Your task to perform on an android device: Add "apple airpods pro" to the cart on bestbuy Image 0: 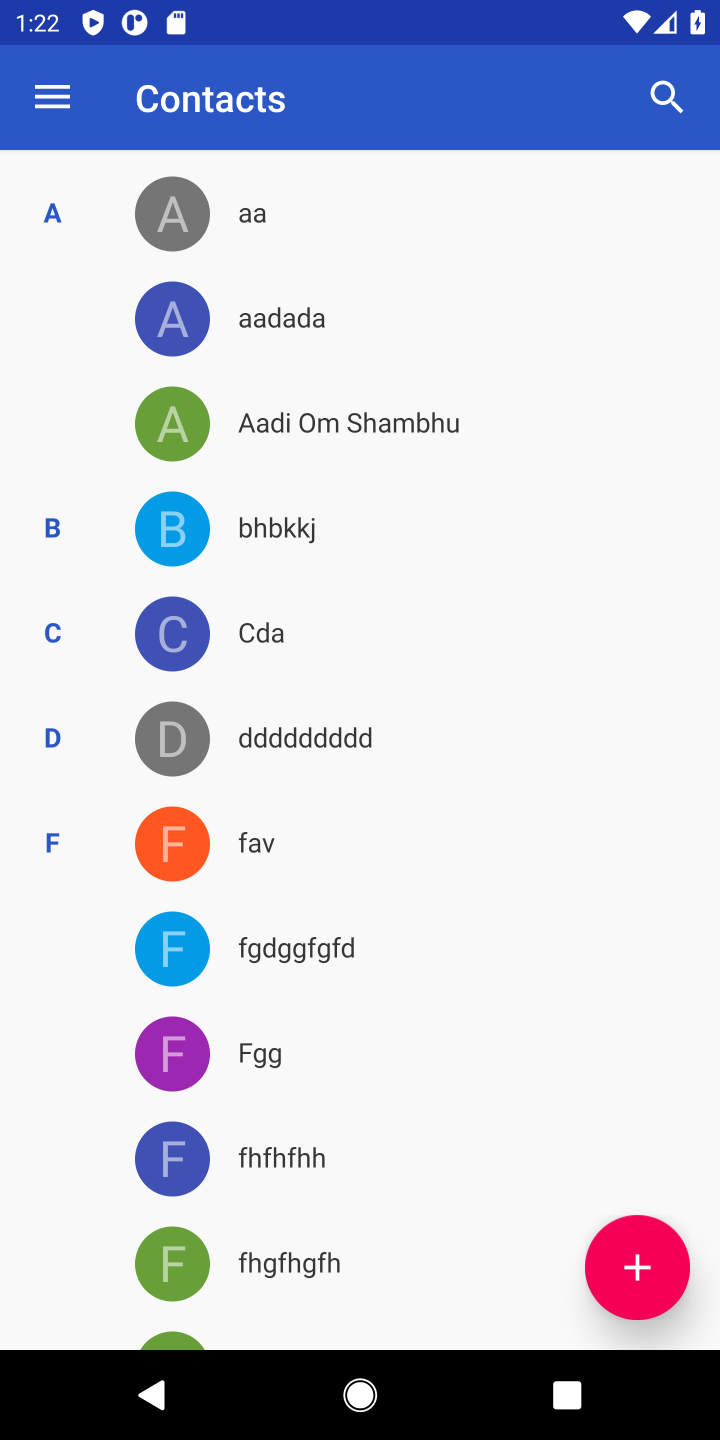
Step 0: press home button
Your task to perform on an android device: Add "apple airpods pro" to the cart on bestbuy Image 1: 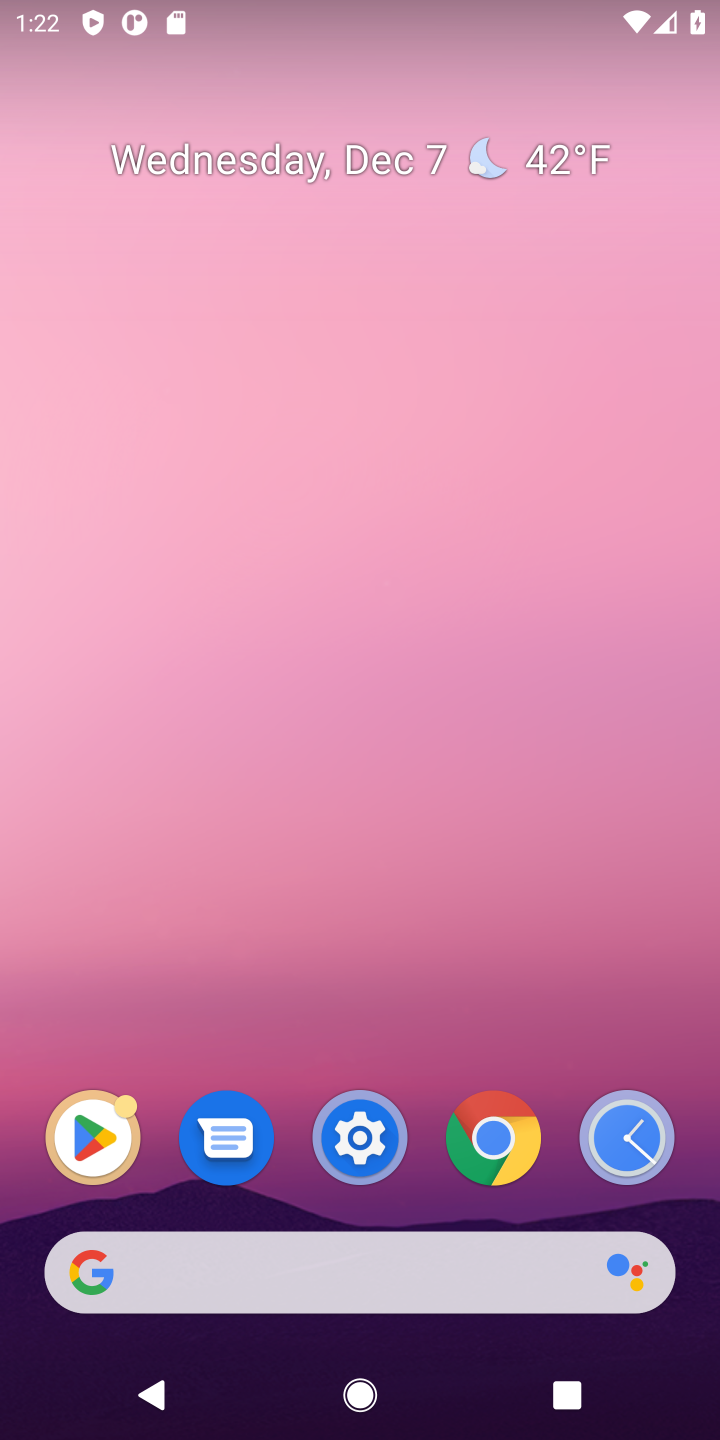
Step 1: click (316, 1259)
Your task to perform on an android device: Add "apple airpods pro" to the cart on bestbuy Image 2: 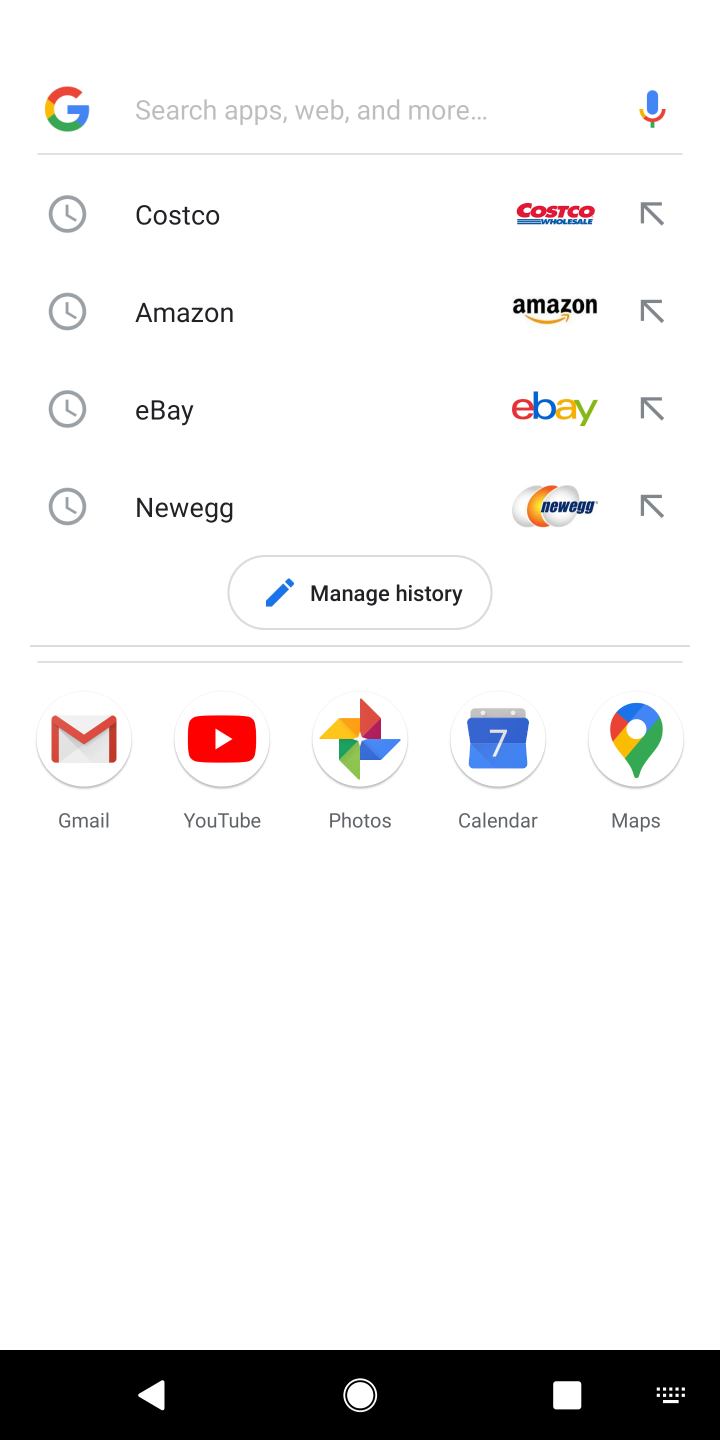
Step 2: type "estbuy"
Your task to perform on an android device: Add "apple airpods pro" to the cart on bestbuy Image 3: 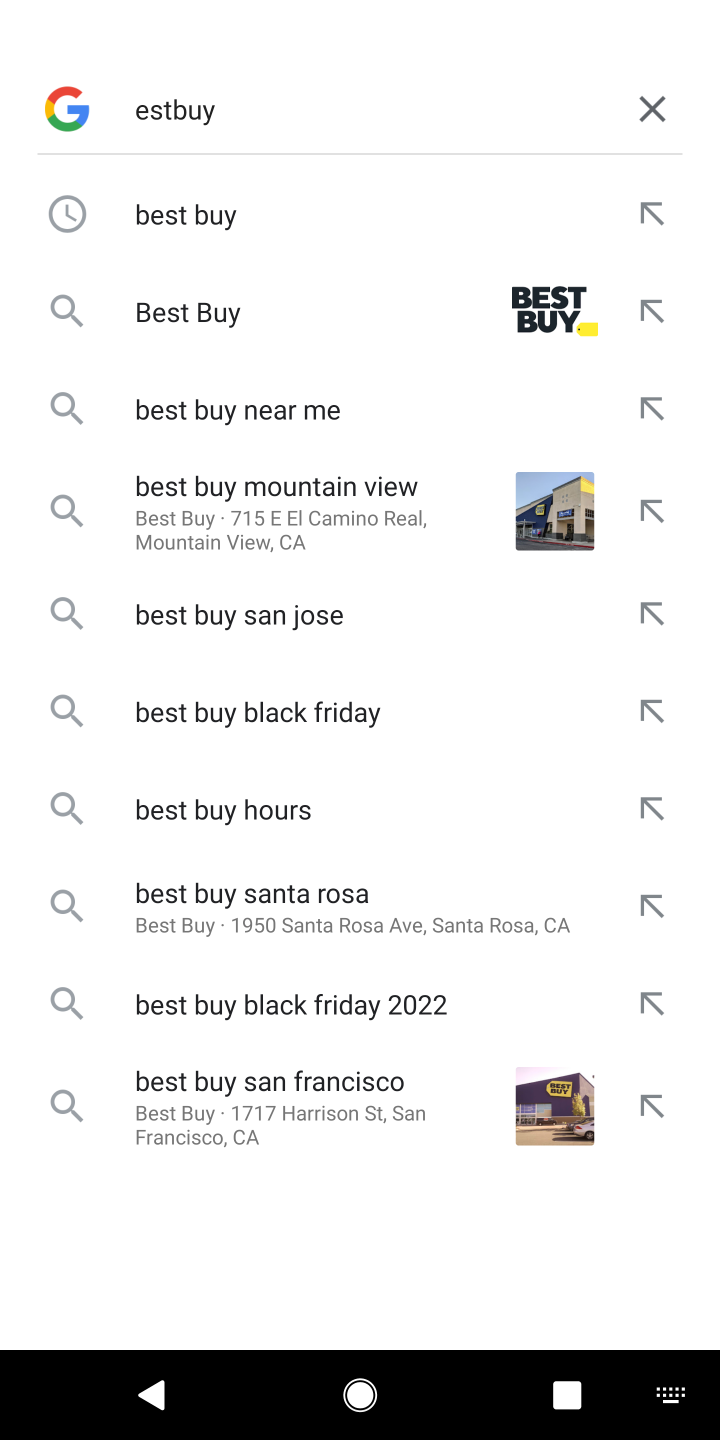
Step 3: click (222, 307)
Your task to perform on an android device: Add "apple airpods pro" to the cart on bestbuy Image 4: 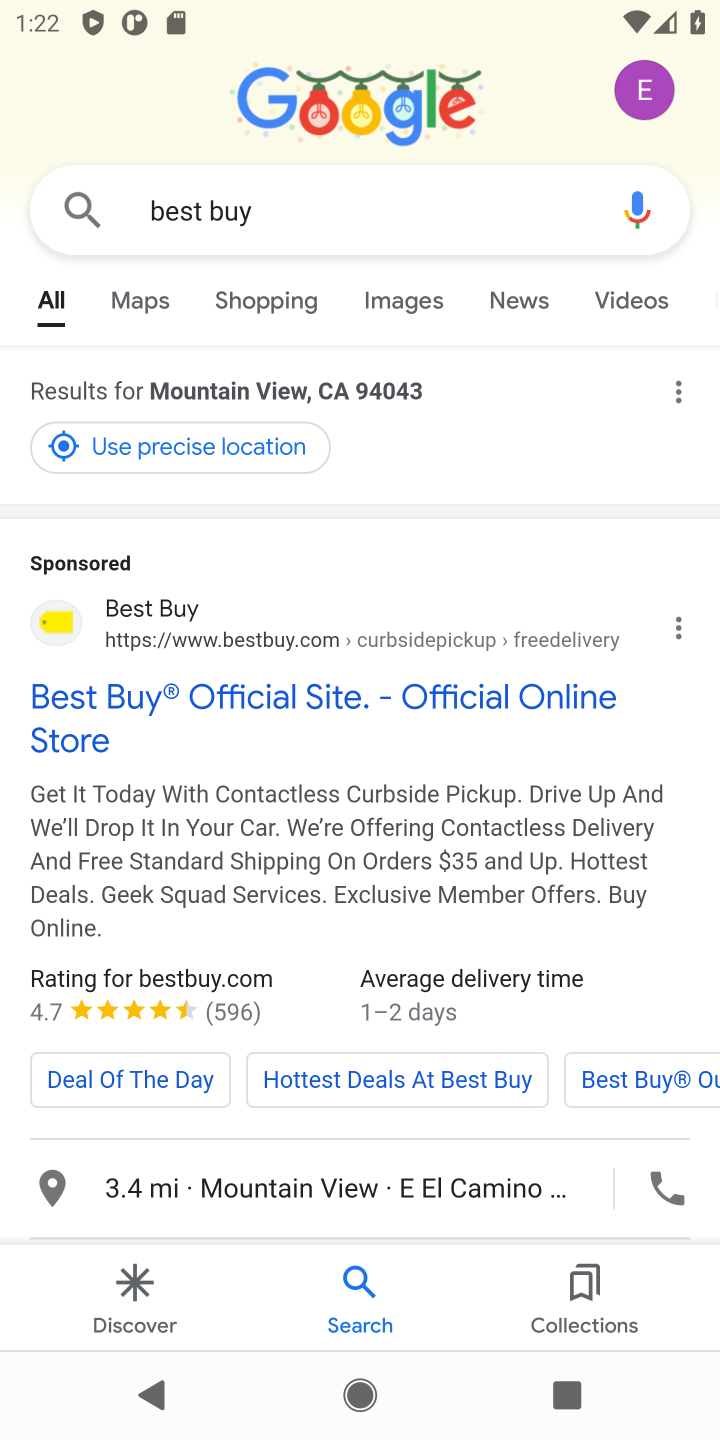
Step 4: click (99, 709)
Your task to perform on an android device: Add "apple airpods pro" to the cart on bestbuy Image 5: 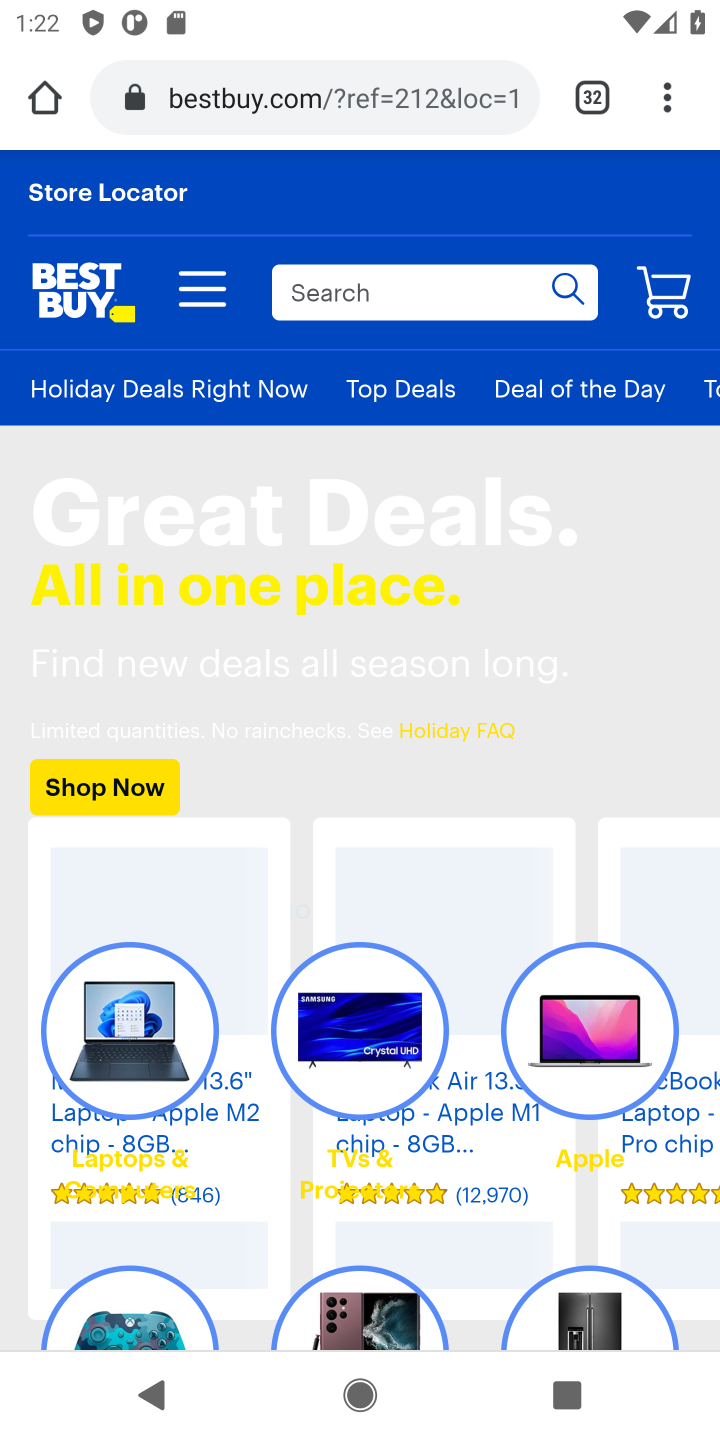
Step 5: click (421, 271)
Your task to perform on an android device: Add "apple airpods pro" to the cart on bestbuy Image 6: 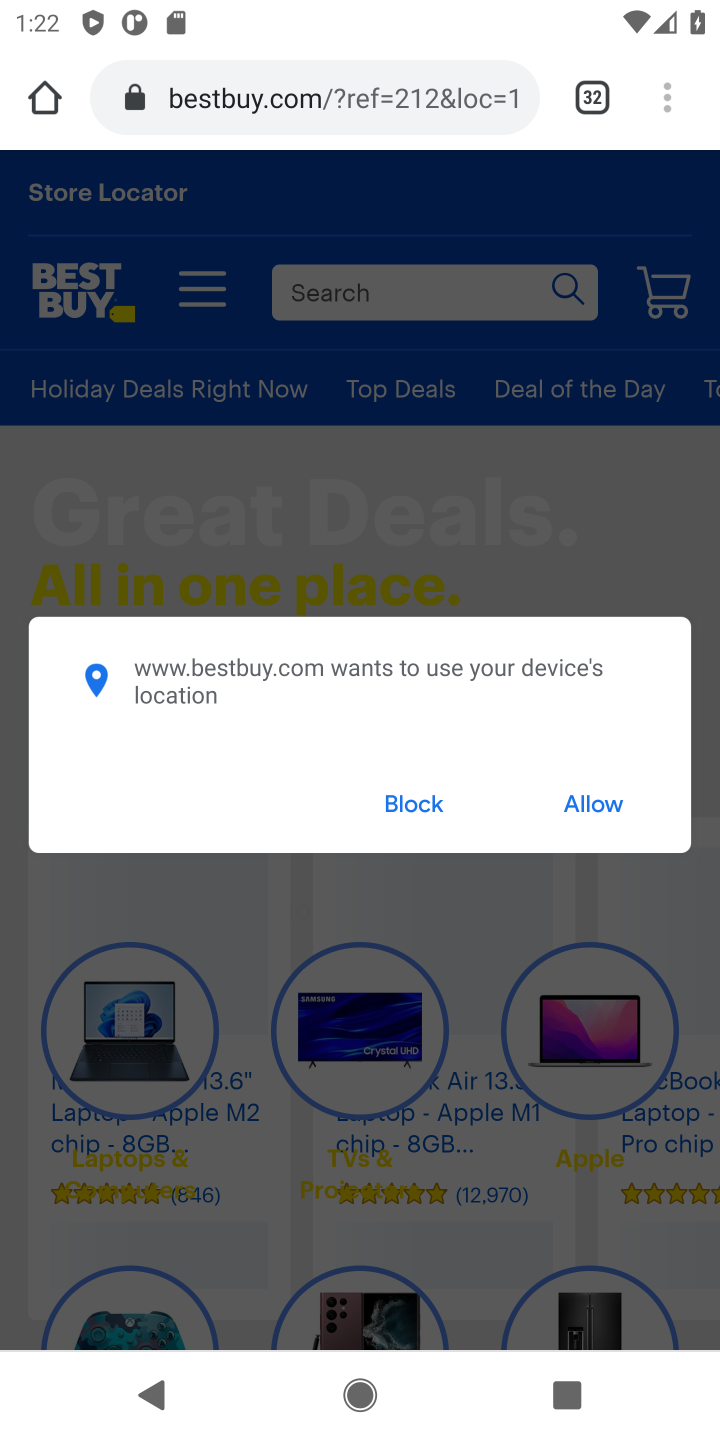
Step 6: type "apple airpod"
Your task to perform on an android device: Add "apple airpods pro" to the cart on bestbuy Image 7: 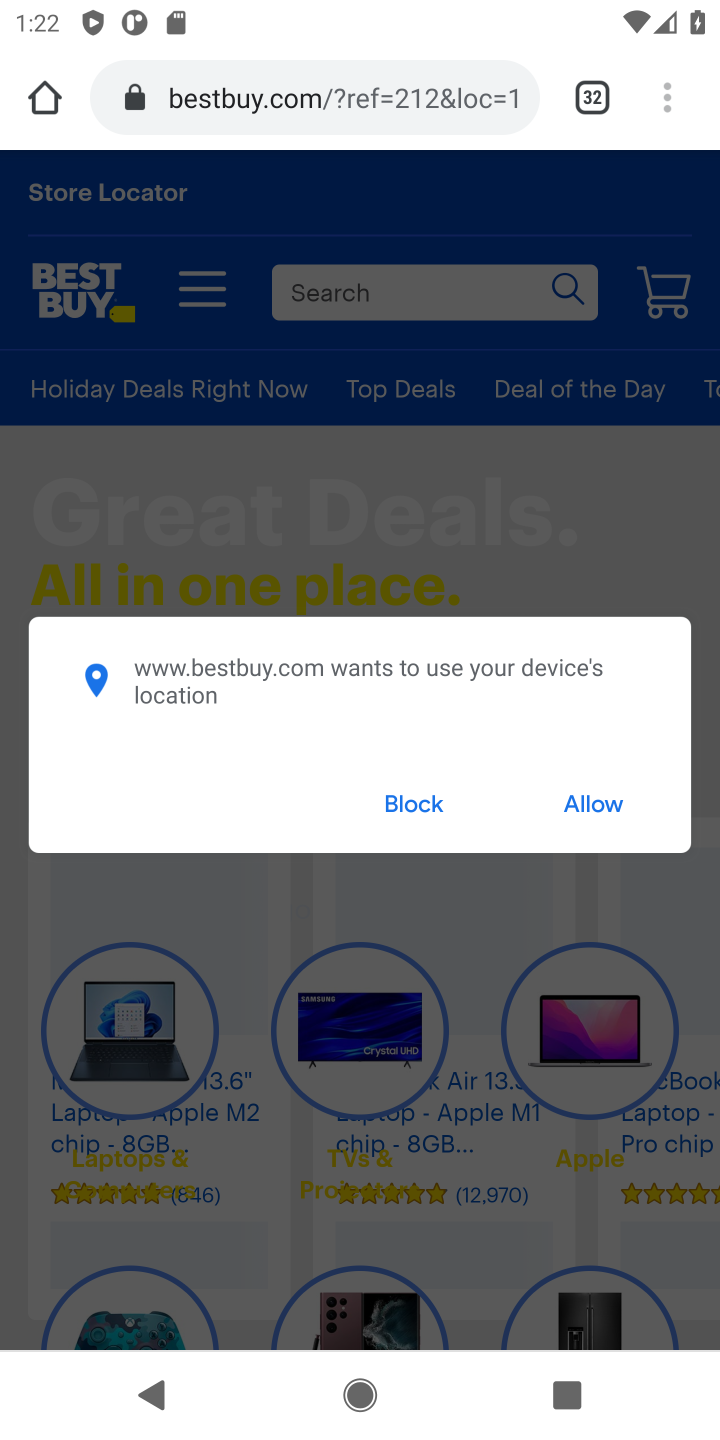
Step 7: click (422, 814)
Your task to perform on an android device: Add "apple airpods pro" to the cart on bestbuy Image 8: 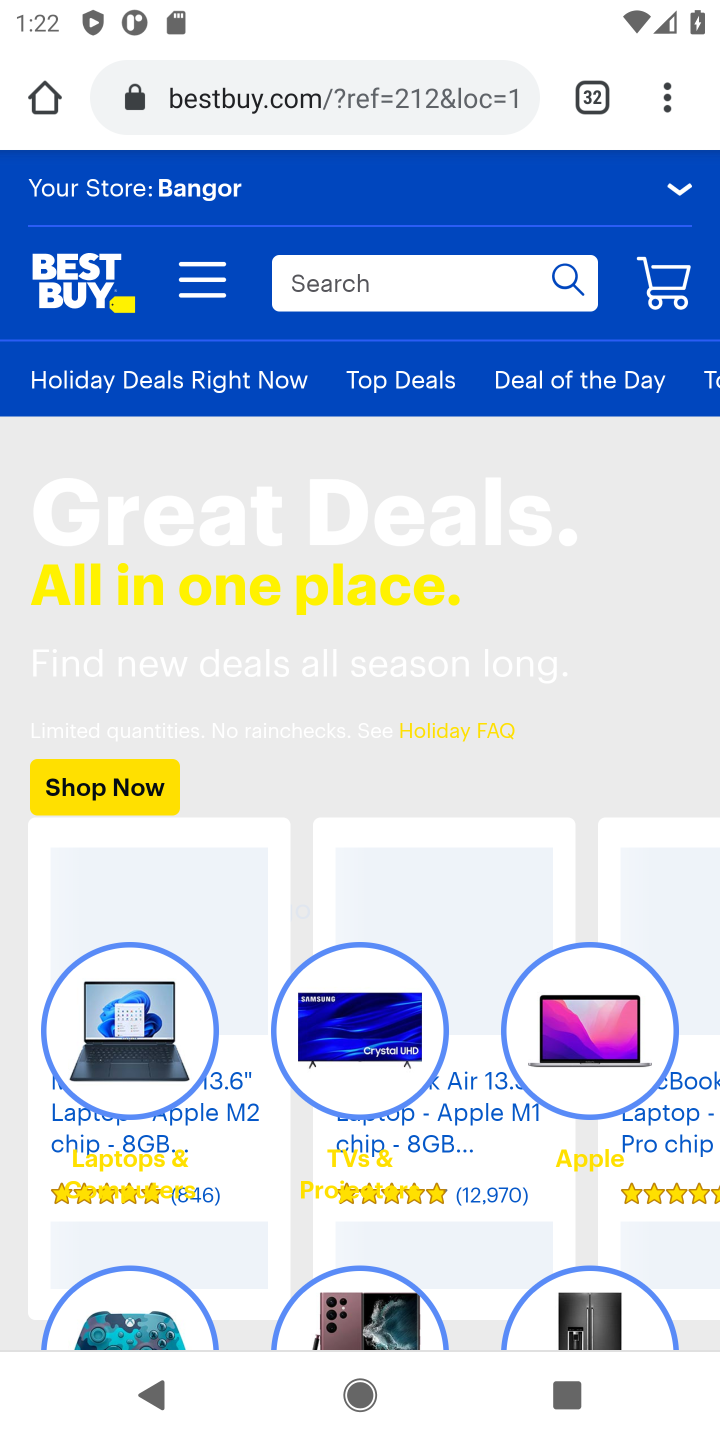
Step 8: click (417, 288)
Your task to perform on an android device: Add "apple airpods pro" to the cart on bestbuy Image 9: 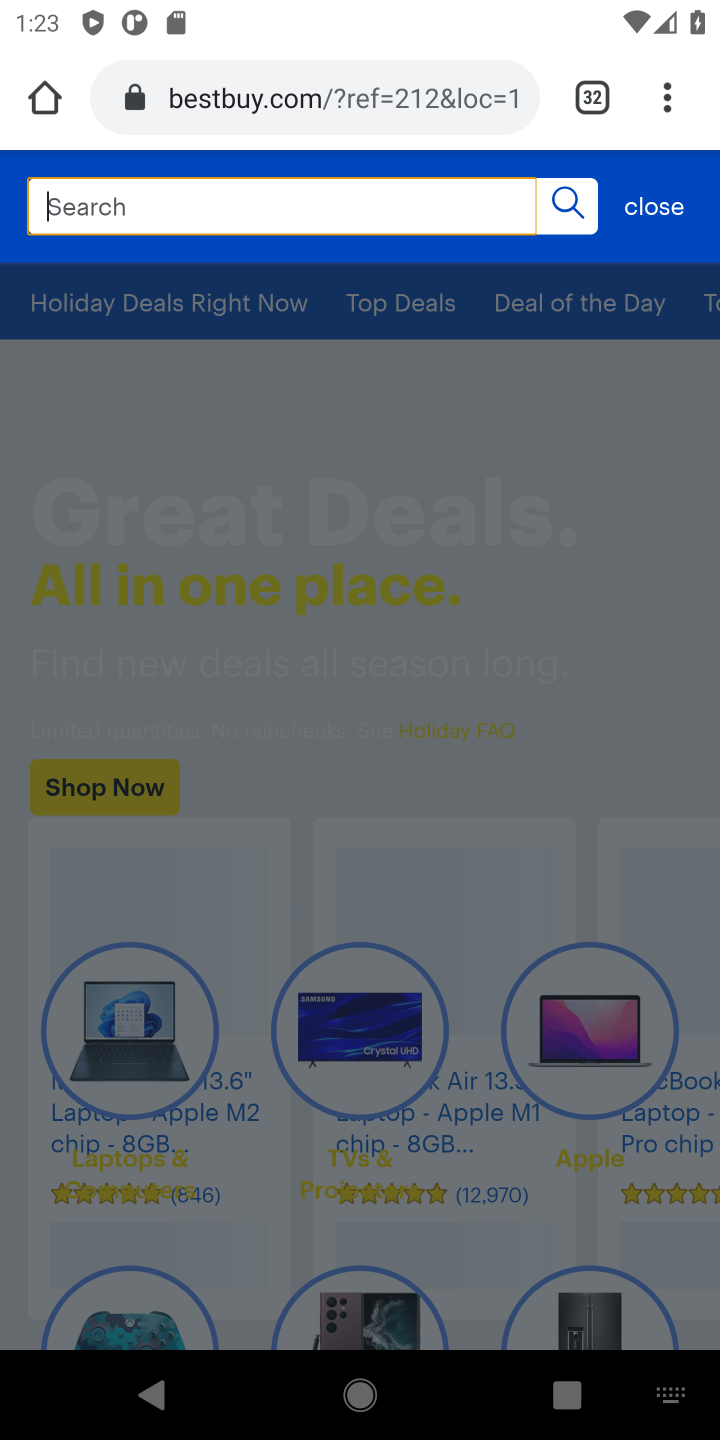
Step 9: type "apple airpod"
Your task to perform on an android device: Add "apple airpods pro" to the cart on bestbuy Image 10: 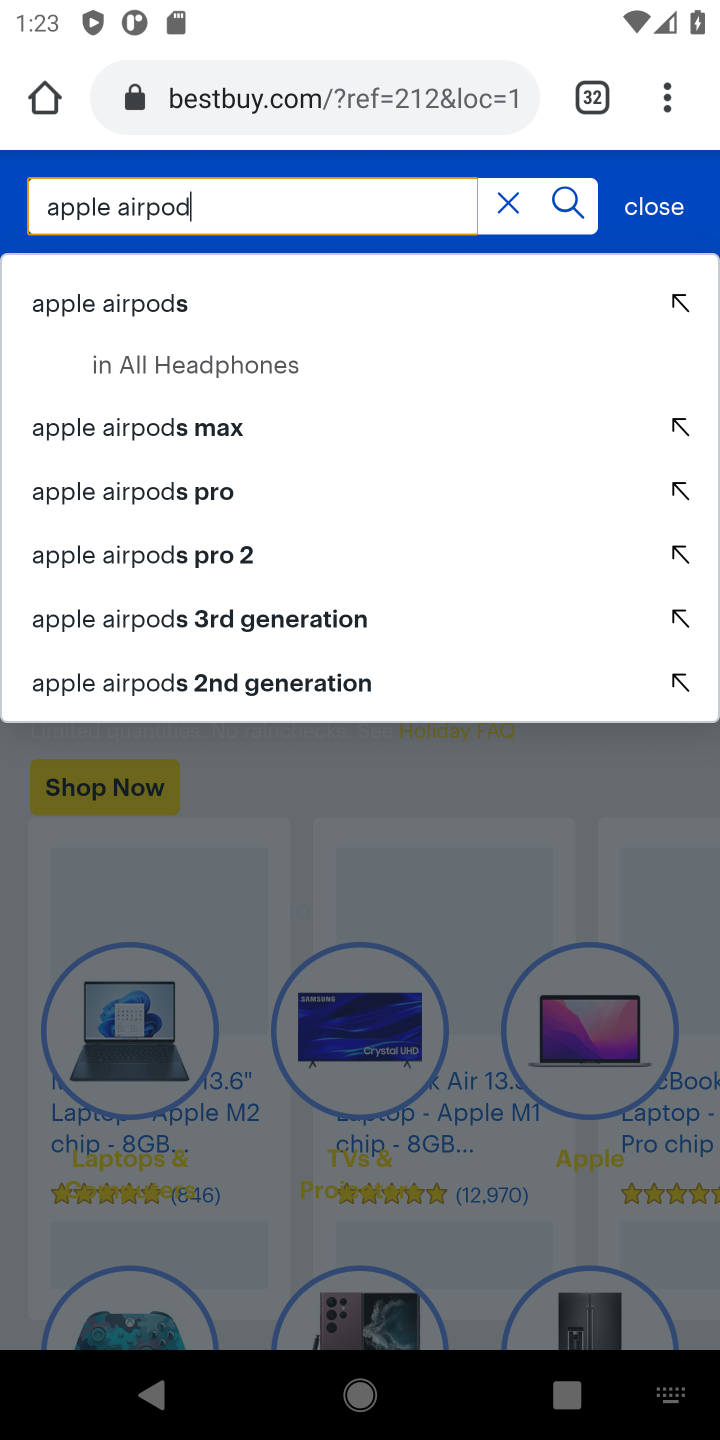
Step 10: click (190, 318)
Your task to perform on an android device: Add "apple airpods pro" to the cart on bestbuy Image 11: 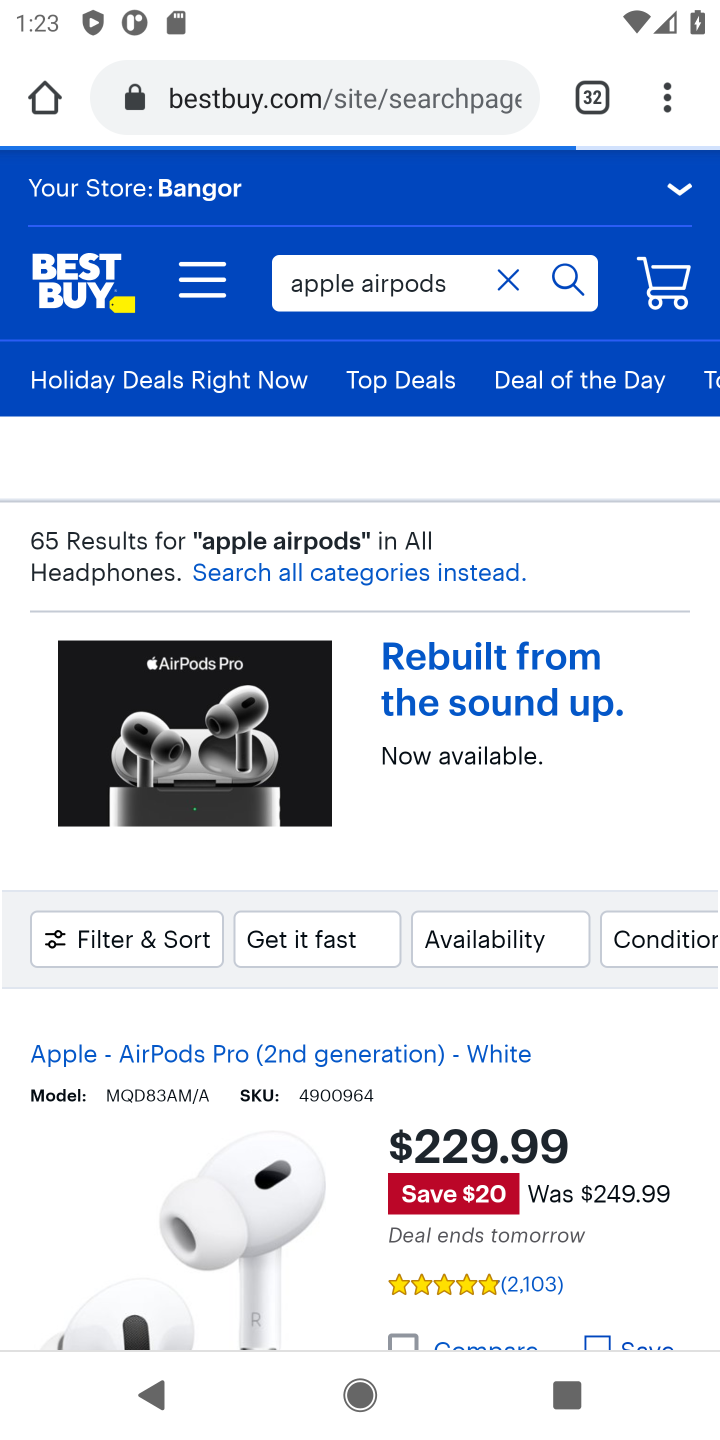
Step 11: drag from (345, 1256) to (341, 630)
Your task to perform on an android device: Add "apple airpods pro" to the cart on bestbuy Image 12: 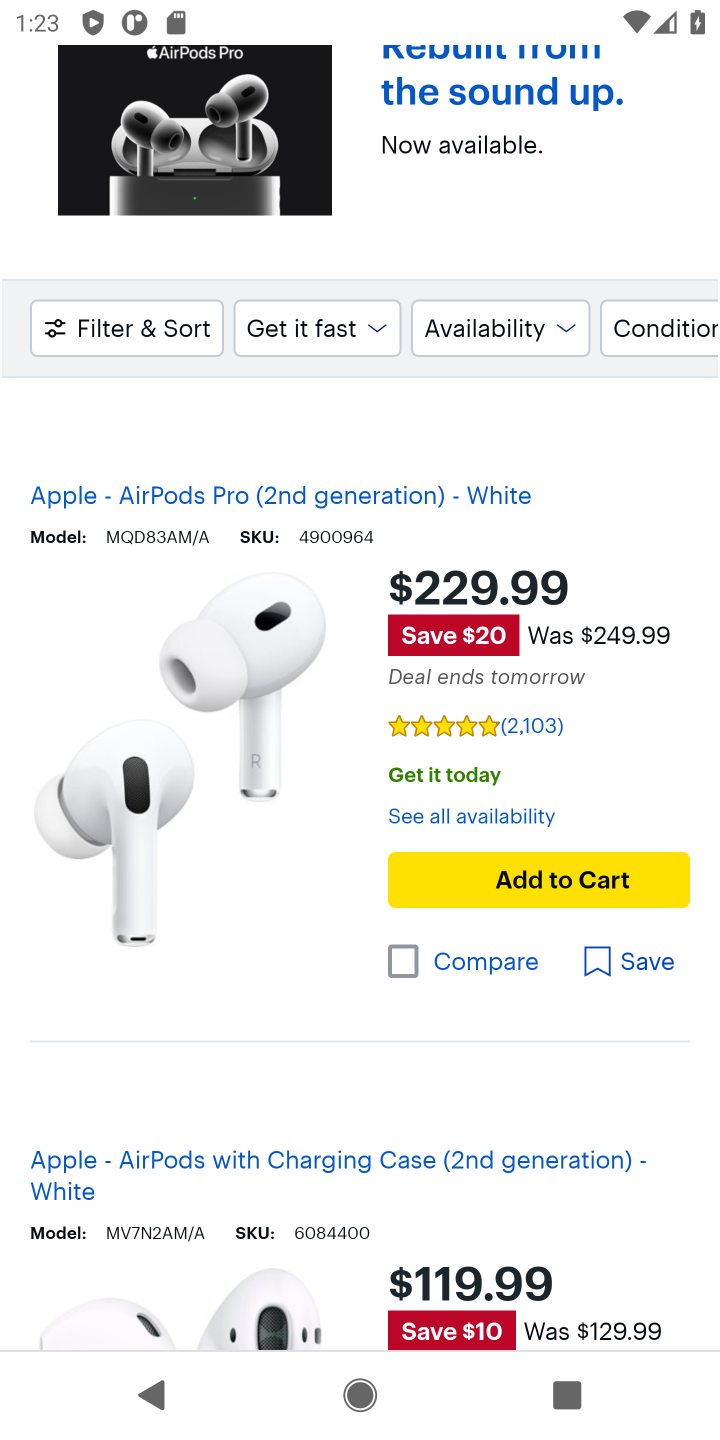
Step 12: click (528, 803)
Your task to perform on an android device: Add "apple airpods pro" to the cart on bestbuy Image 13: 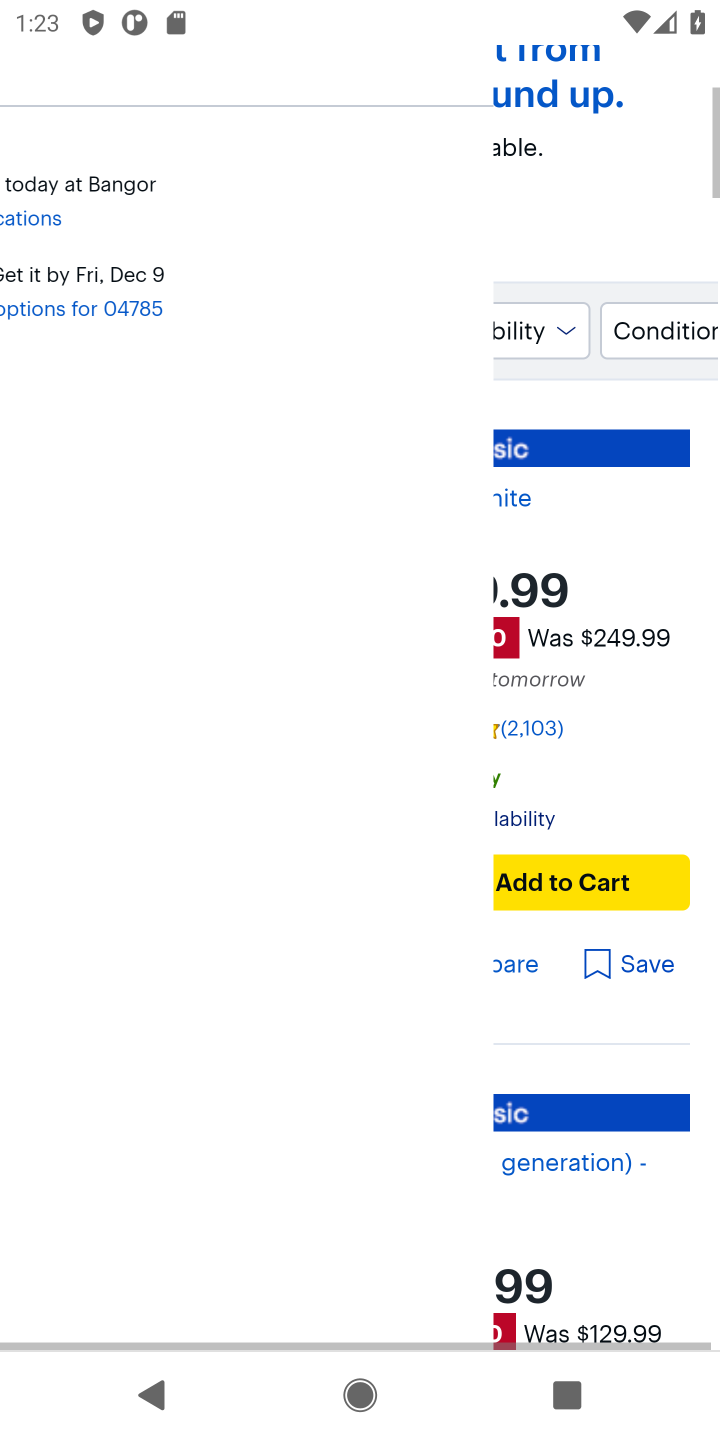
Step 13: task complete